Your task to perform on an android device: open app "Booking.com: Hotels and more" Image 0: 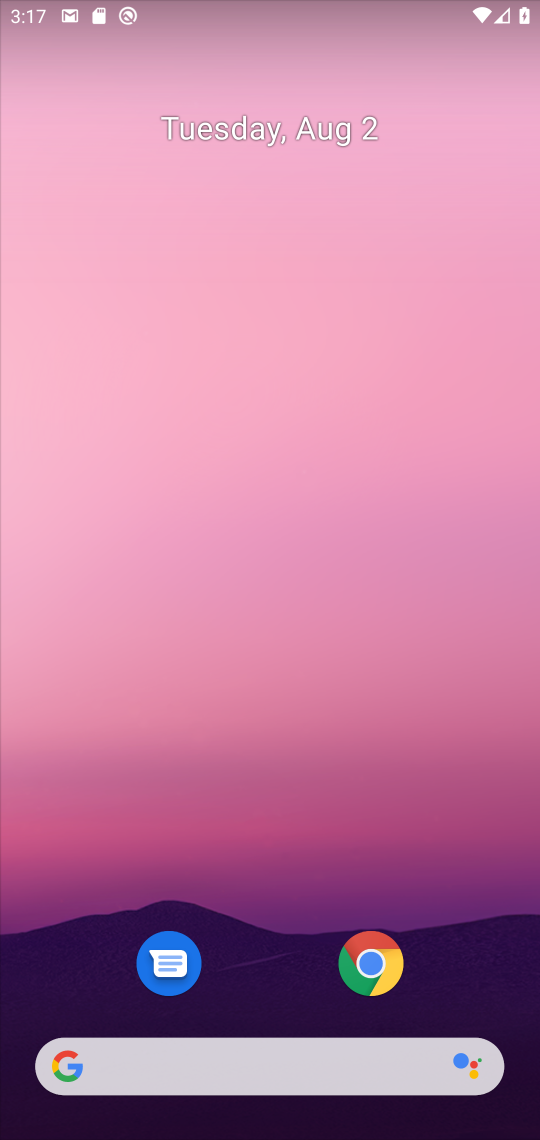
Step 0: drag from (254, 985) to (431, 9)
Your task to perform on an android device: open app "Booking.com: Hotels and more" Image 1: 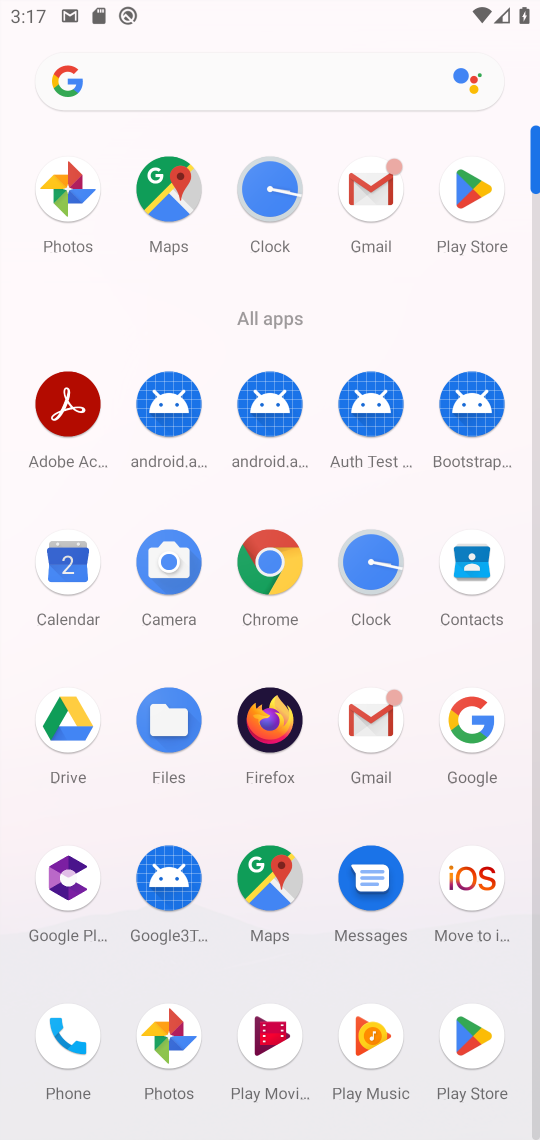
Step 1: click (475, 205)
Your task to perform on an android device: open app "Booking.com: Hotels and more" Image 2: 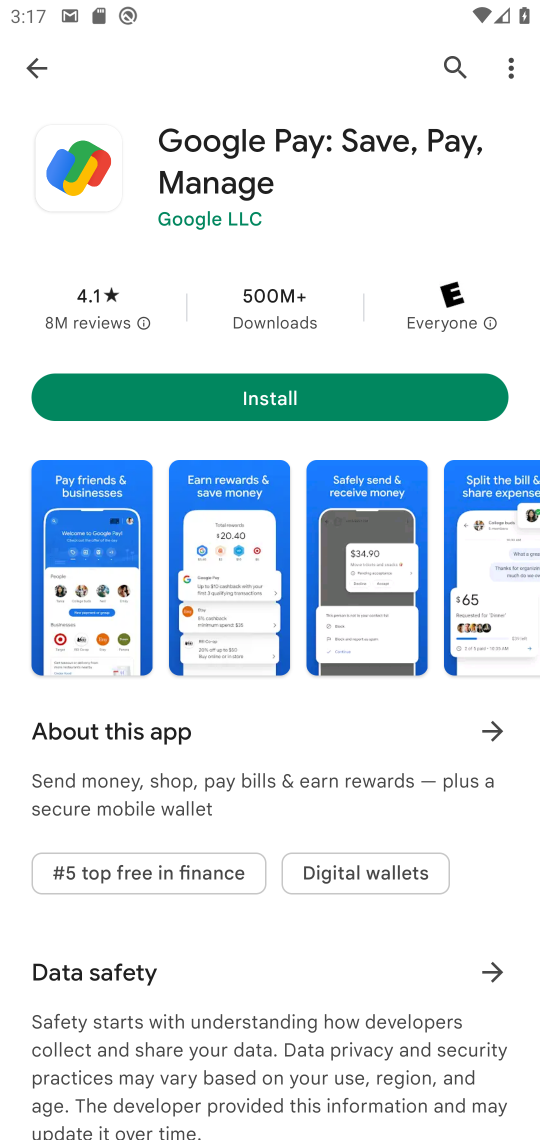
Step 2: click (449, 68)
Your task to perform on an android device: open app "Booking.com: Hotels and more" Image 3: 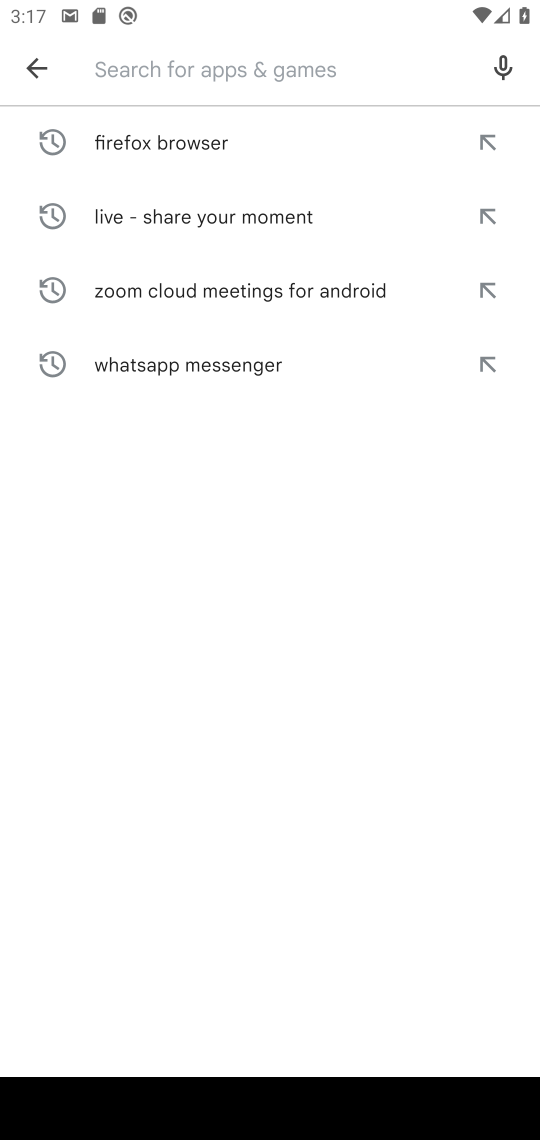
Step 3: type "booking.com: hotels and more"
Your task to perform on an android device: open app "Booking.com: Hotels and more" Image 4: 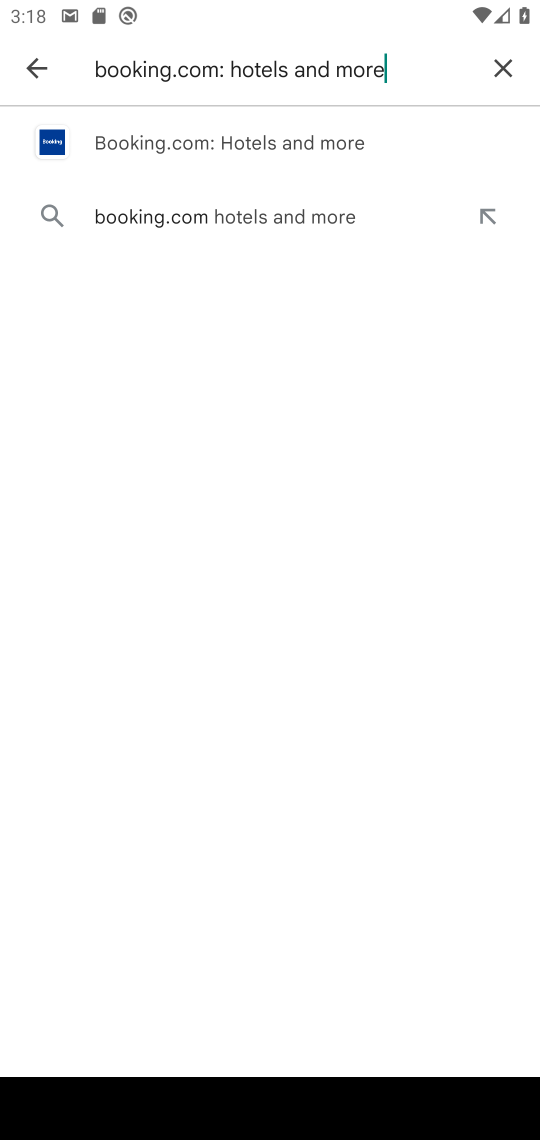
Step 4: click (342, 144)
Your task to perform on an android device: open app "Booking.com: Hotels and more" Image 5: 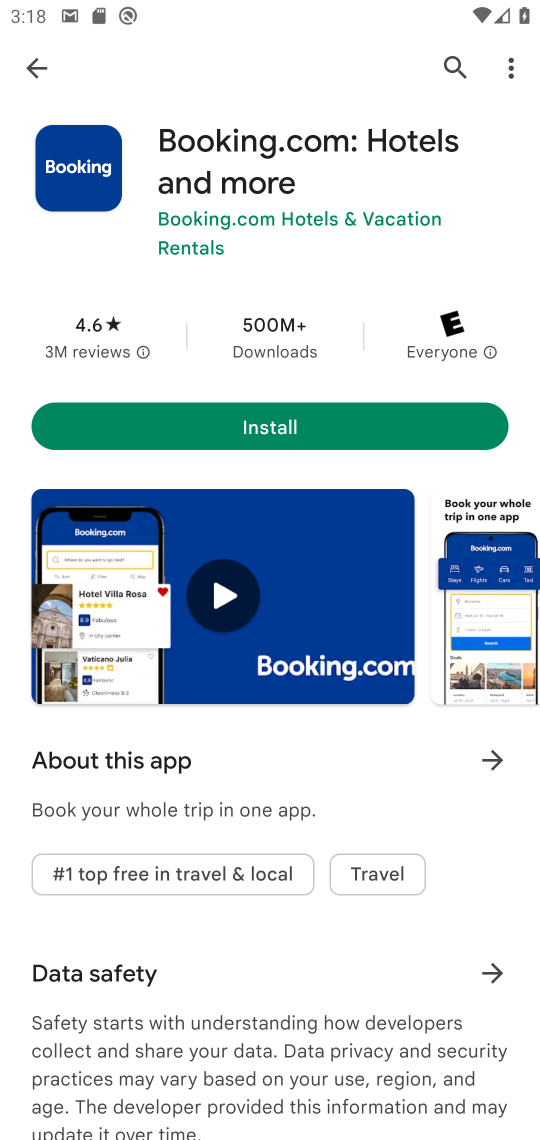
Step 5: task complete